Your task to perform on an android device: find which apps use the phone's location Image 0: 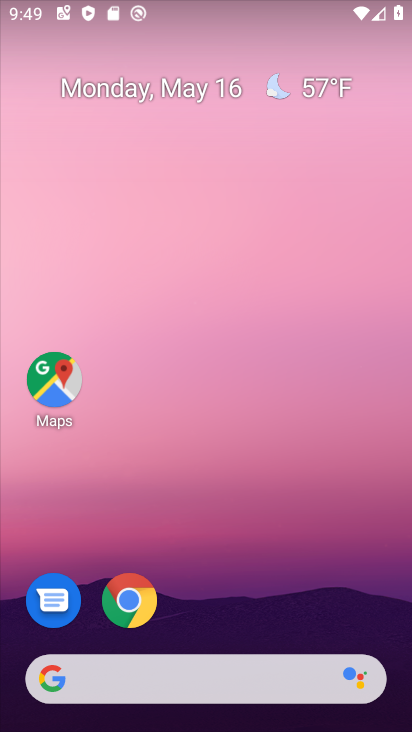
Step 0: drag from (369, 587) to (296, 66)
Your task to perform on an android device: find which apps use the phone's location Image 1: 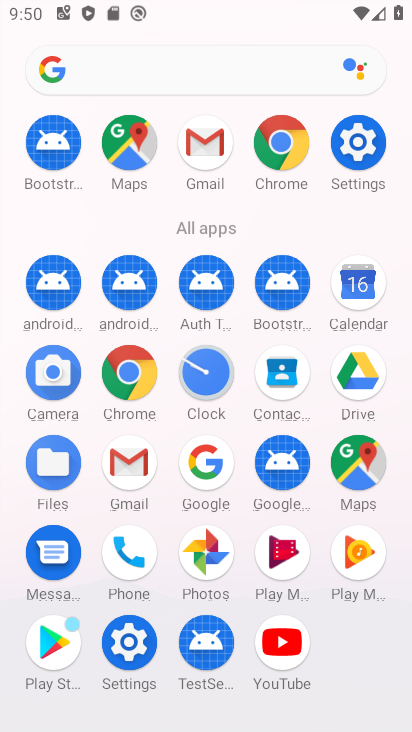
Step 1: click (365, 162)
Your task to perform on an android device: find which apps use the phone's location Image 2: 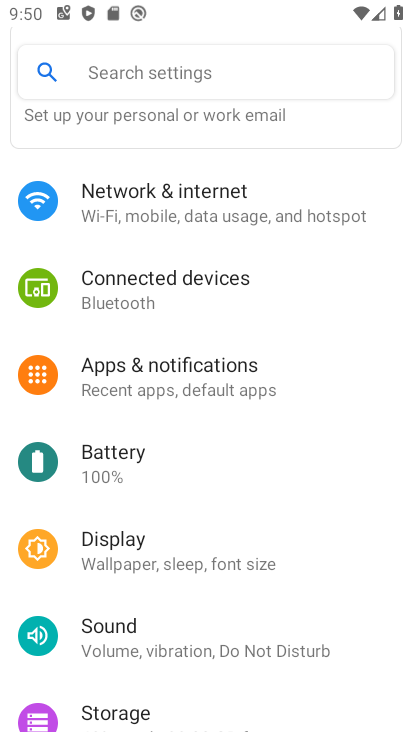
Step 2: press home button
Your task to perform on an android device: find which apps use the phone's location Image 3: 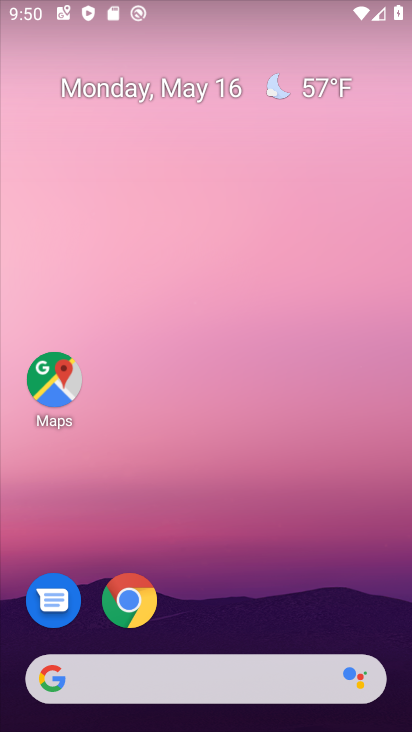
Step 3: drag from (203, 617) to (239, 255)
Your task to perform on an android device: find which apps use the phone's location Image 4: 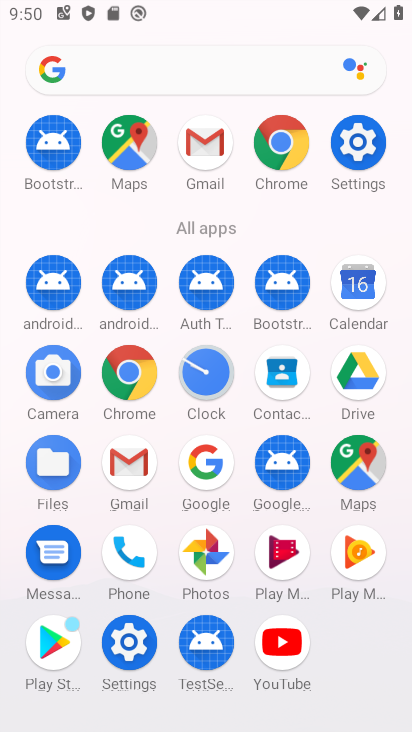
Step 4: drag from (194, 675) to (197, 390)
Your task to perform on an android device: find which apps use the phone's location Image 5: 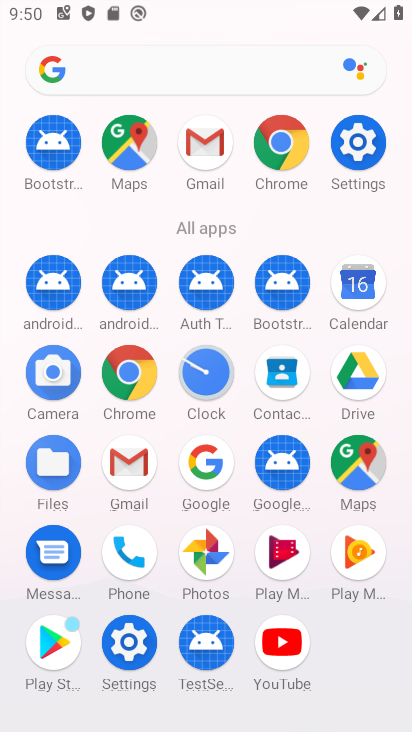
Step 5: click (120, 551)
Your task to perform on an android device: find which apps use the phone's location Image 6: 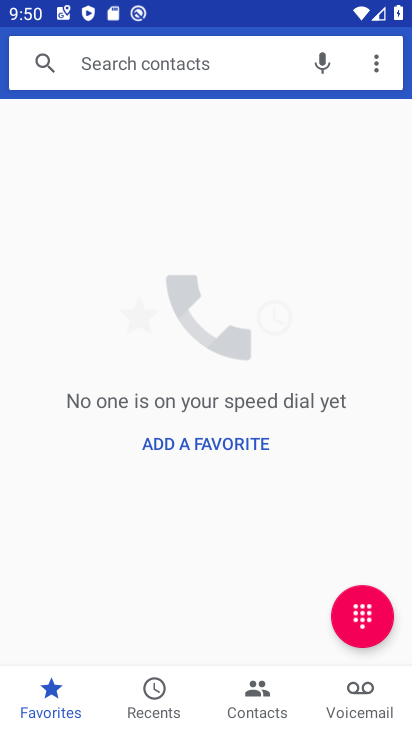
Step 6: task complete